Your task to perform on an android device: turn on the 24-hour format for clock Image 0: 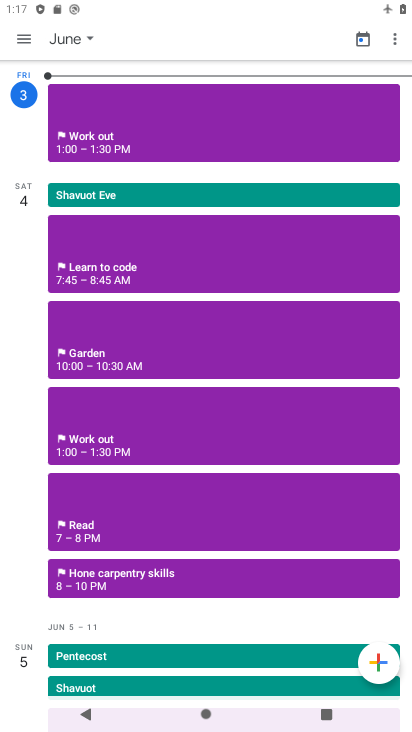
Step 0: press home button
Your task to perform on an android device: turn on the 24-hour format for clock Image 1: 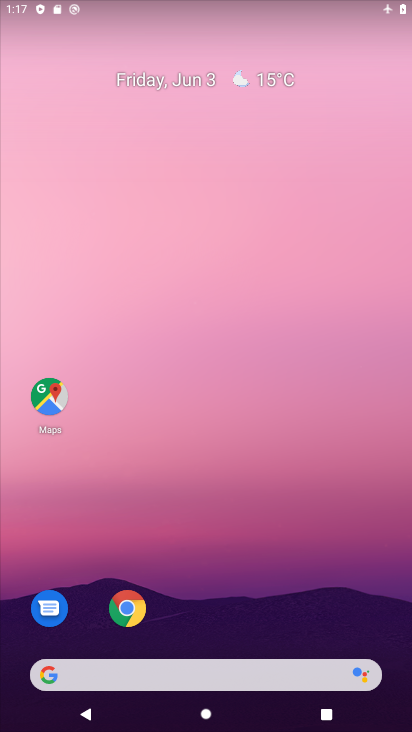
Step 1: drag from (254, 361) to (240, 124)
Your task to perform on an android device: turn on the 24-hour format for clock Image 2: 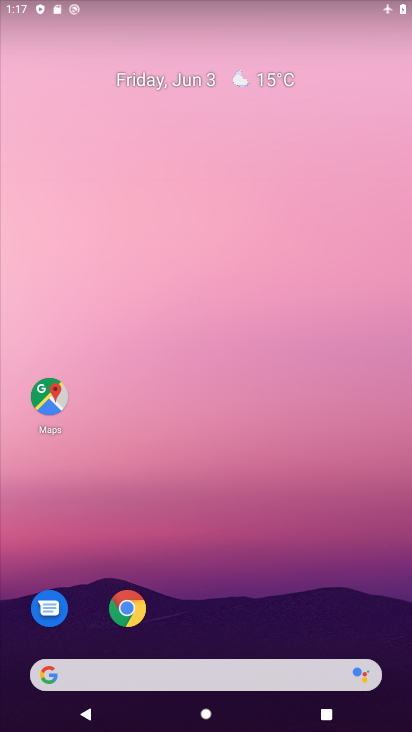
Step 2: drag from (236, 511) to (201, 113)
Your task to perform on an android device: turn on the 24-hour format for clock Image 3: 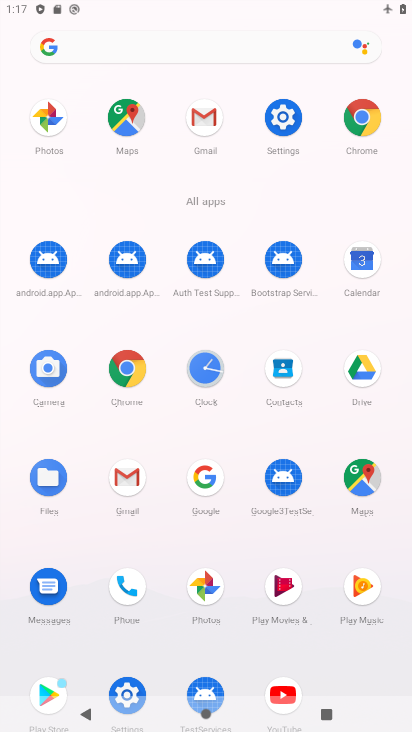
Step 3: click (207, 364)
Your task to perform on an android device: turn on the 24-hour format for clock Image 4: 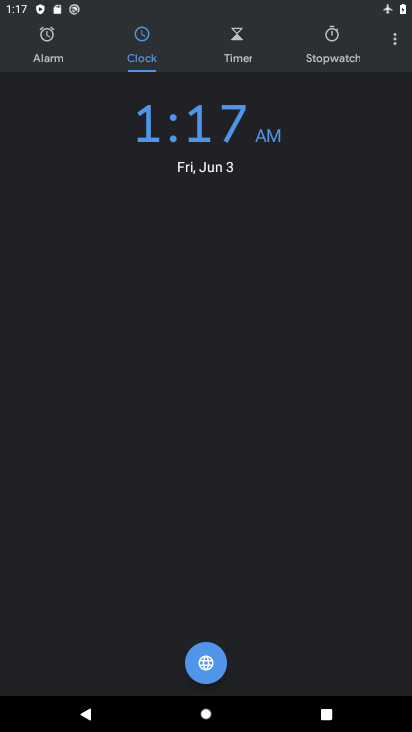
Step 4: click (393, 37)
Your task to perform on an android device: turn on the 24-hour format for clock Image 5: 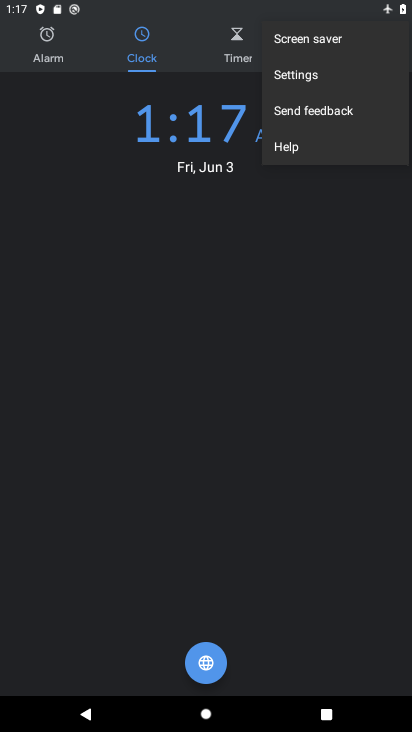
Step 5: click (322, 73)
Your task to perform on an android device: turn on the 24-hour format for clock Image 6: 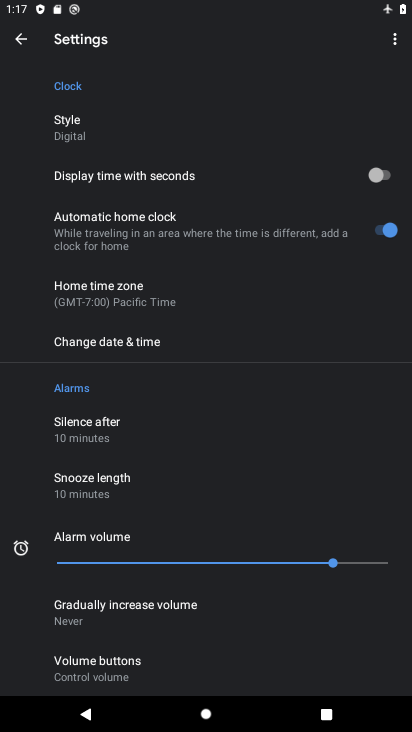
Step 6: click (133, 351)
Your task to perform on an android device: turn on the 24-hour format for clock Image 7: 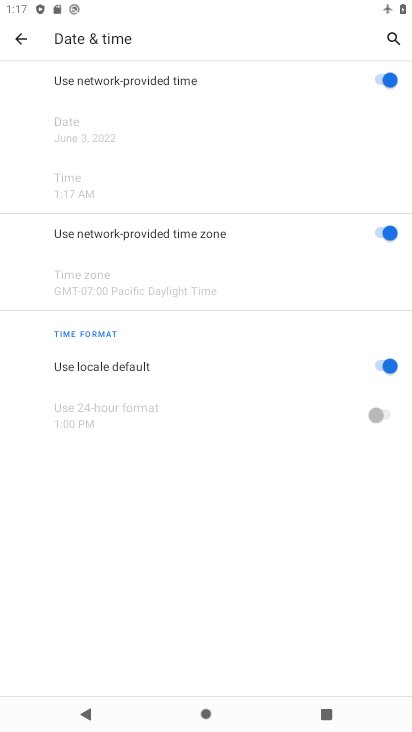
Step 7: click (375, 368)
Your task to perform on an android device: turn on the 24-hour format for clock Image 8: 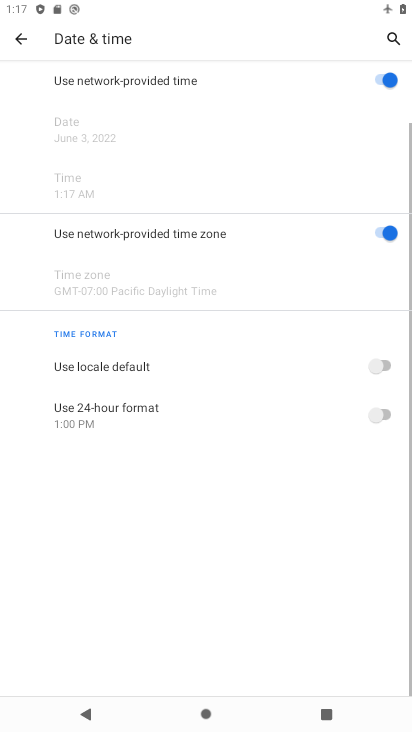
Step 8: click (373, 416)
Your task to perform on an android device: turn on the 24-hour format for clock Image 9: 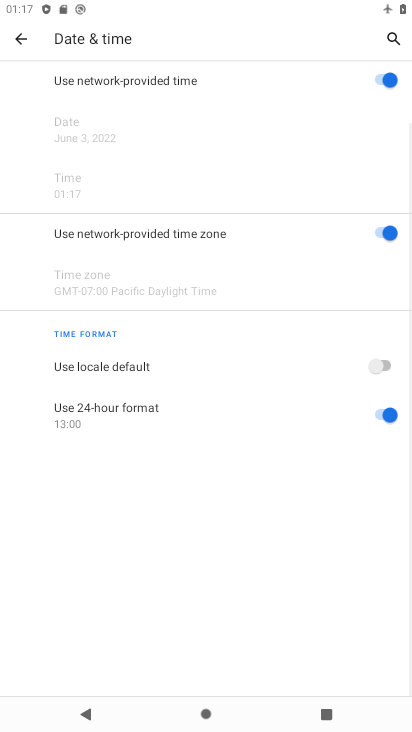
Step 9: task complete